Your task to perform on an android device: turn on notifications settings in the gmail app Image 0: 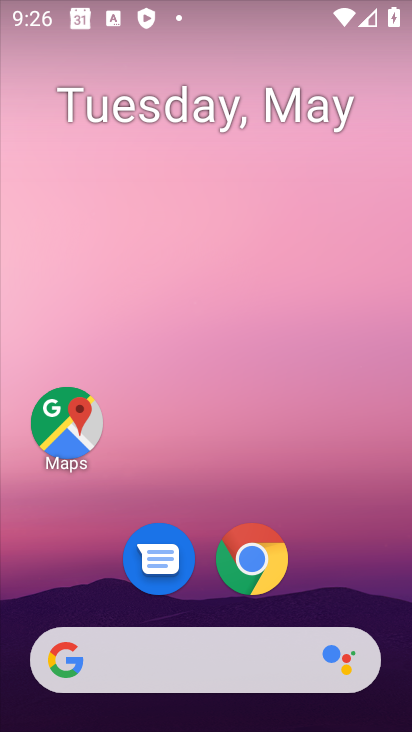
Step 0: drag from (220, 630) to (206, 331)
Your task to perform on an android device: turn on notifications settings in the gmail app Image 1: 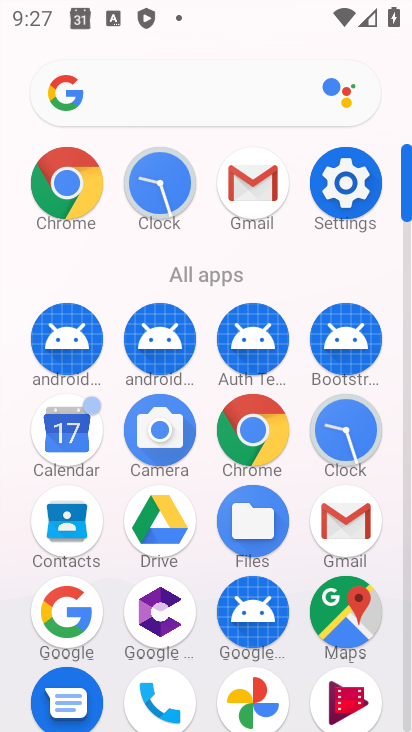
Step 1: click (349, 504)
Your task to perform on an android device: turn on notifications settings in the gmail app Image 2: 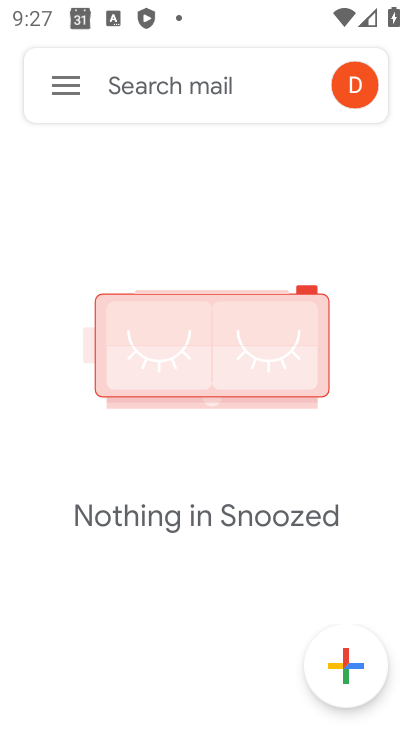
Step 2: click (66, 80)
Your task to perform on an android device: turn on notifications settings in the gmail app Image 3: 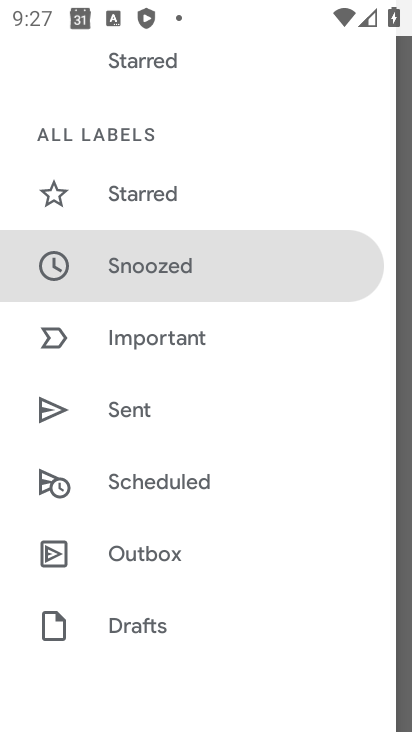
Step 3: drag from (180, 558) to (202, 145)
Your task to perform on an android device: turn on notifications settings in the gmail app Image 4: 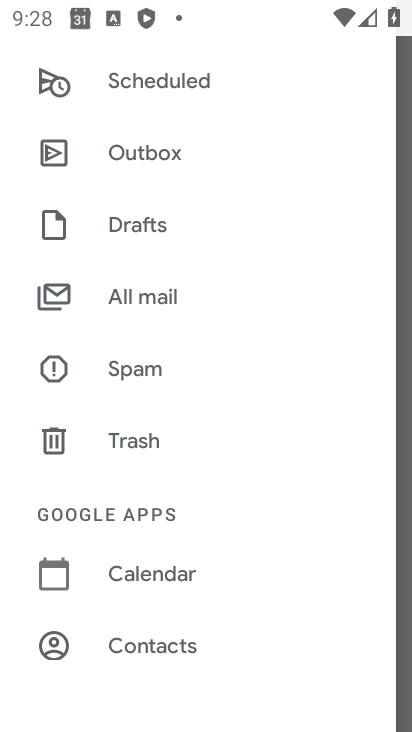
Step 4: drag from (191, 584) to (189, 50)
Your task to perform on an android device: turn on notifications settings in the gmail app Image 5: 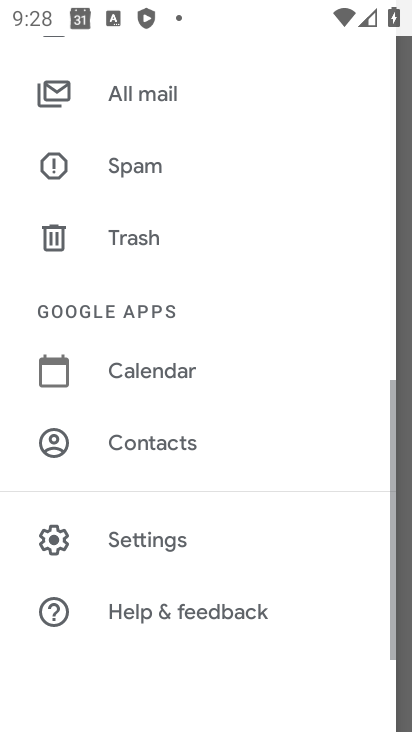
Step 5: click (144, 530)
Your task to perform on an android device: turn on notifications settings in the gmail app Image 6: 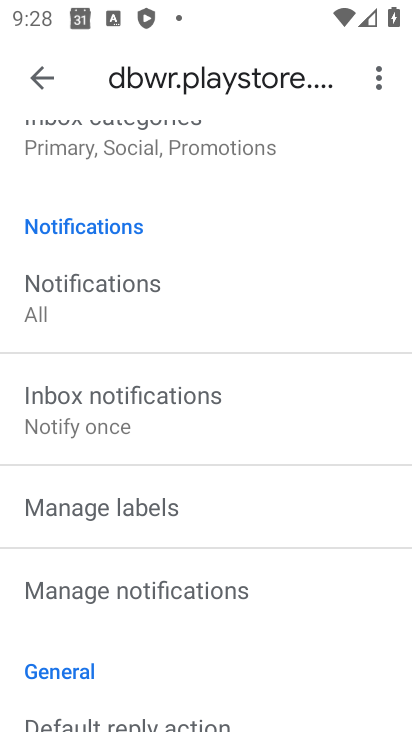
Step 6: click (118, 591)
Your task to perform on an android device: turn on notifications settings in the gmail app Image 7: 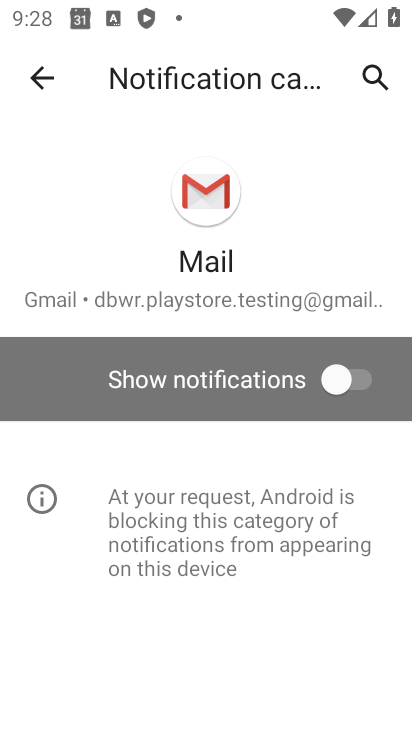
Step 7: click (355, 371)
Your task to perform on an android device: turn on notifications settings in the gmail app Image 8: 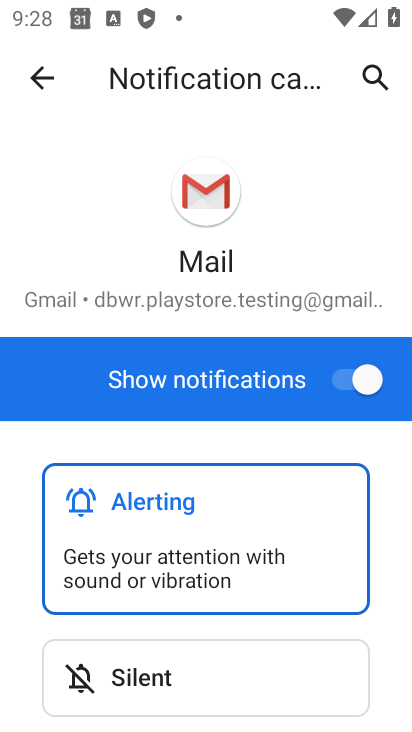
Step 8: task complete